Your task to perform on an android device: Open Yahoo.com Image 0: 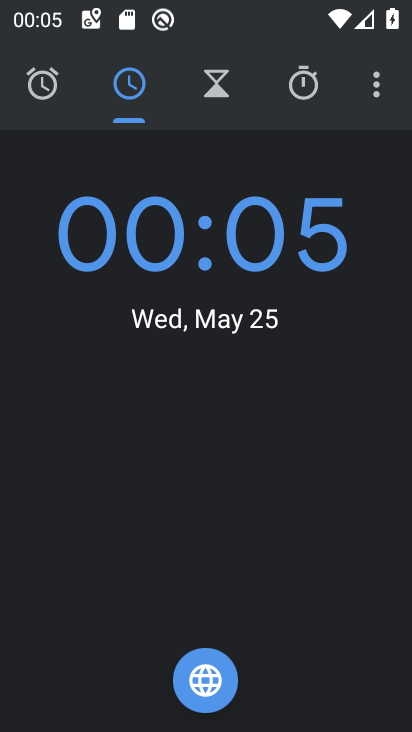
Step 0: press home button
Your task to perform on an android device: Open Yahoo.com Image 1: 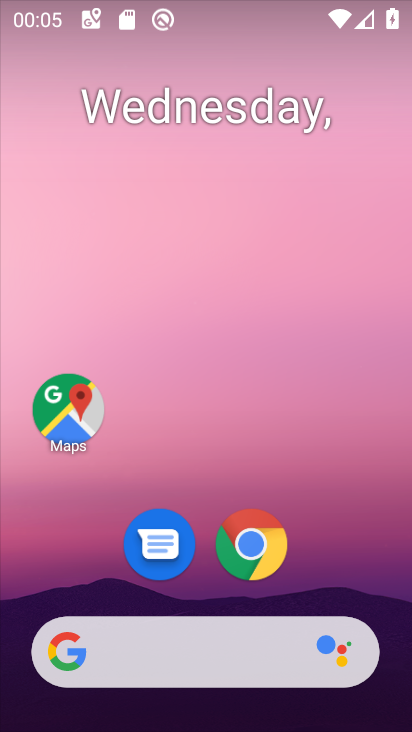
Step 1: drag from (217, 579) to (187, 237)
Your task to perform on an android device: Open Yahoo.com Image 2: 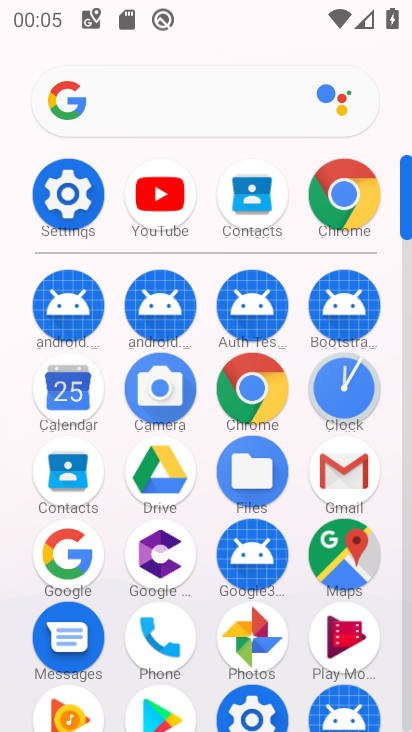
Step 2: click (266, 401)
Your task to perform on an android device: Open Yahoo.com Image 3: 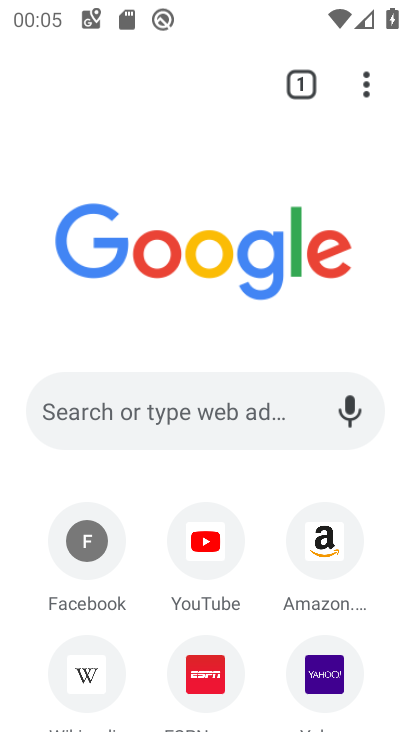
Step 3: click (356, 685)
Your task to perform on an android device: Open Yahoo.com Image 4: 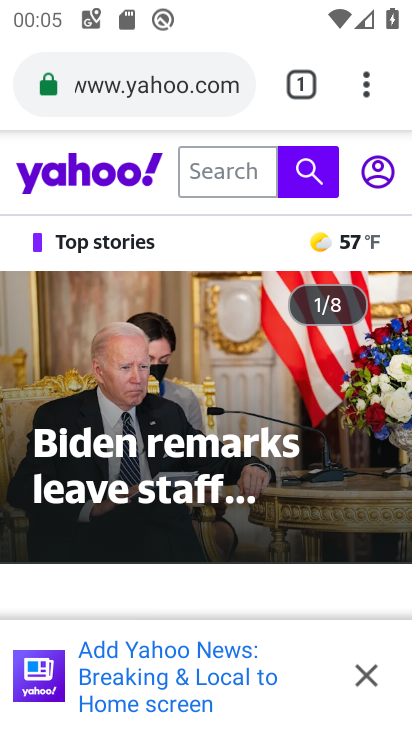
Step 4: task complete